Your task to perform on an android device: visit the assistant section in the google photos Image 0: 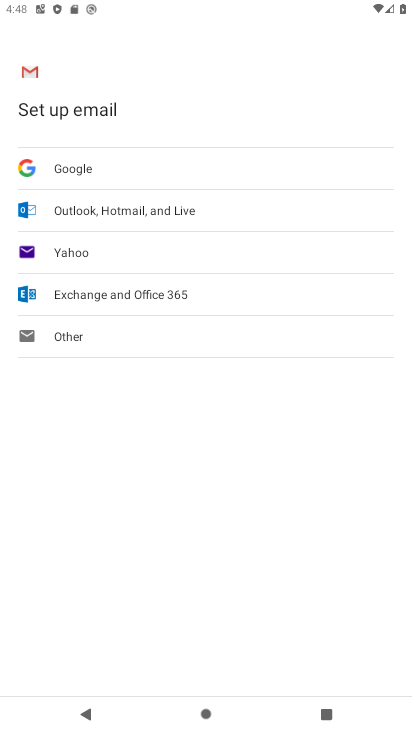
Step 0: press back button
Your task to perform on an android device: visit the assistant section in the google photos Image 1: 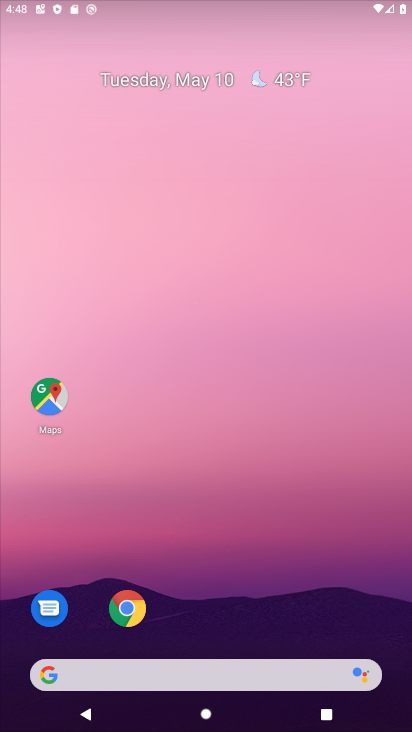
Step 1: drag from (131, 598) to (251, 70)
Your task to perform on an android device: visit the assistant section in the google photos Image 2: 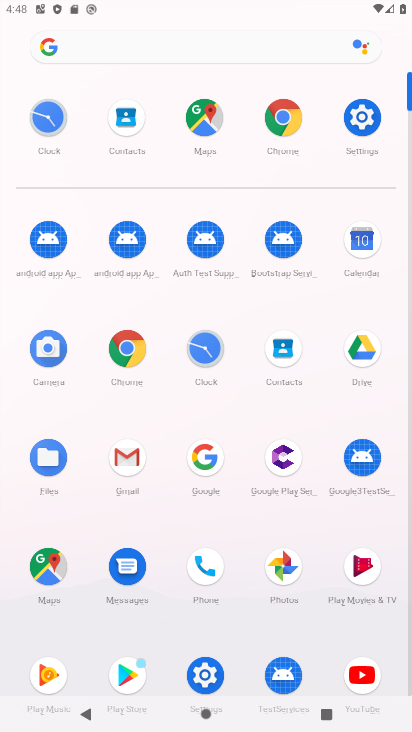
Step 2: click (277, 568)
Your task to perform on an android device: visit the assistant section in the google photos Image 3: 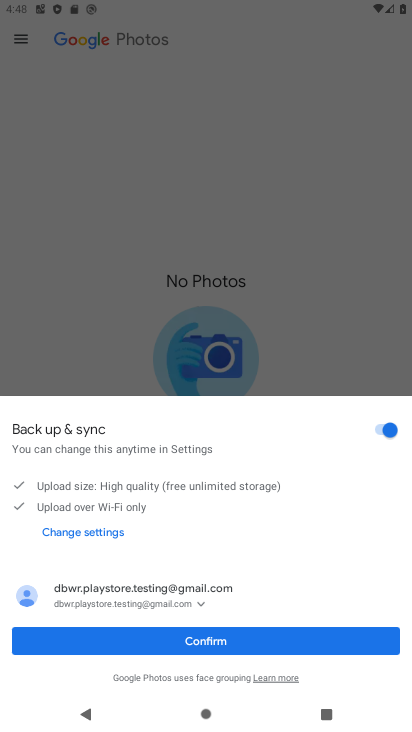
Step 3: click (192, 639)
Your task to perform on an android device: visit the assistant section in the google photos Image 4: 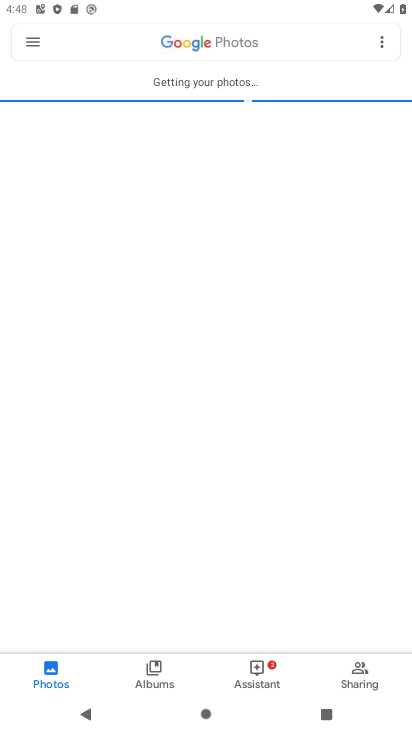
Step 4: click (251, 671)
Your task to perform on an android device: visit the assistant section in the google photos Image 5: 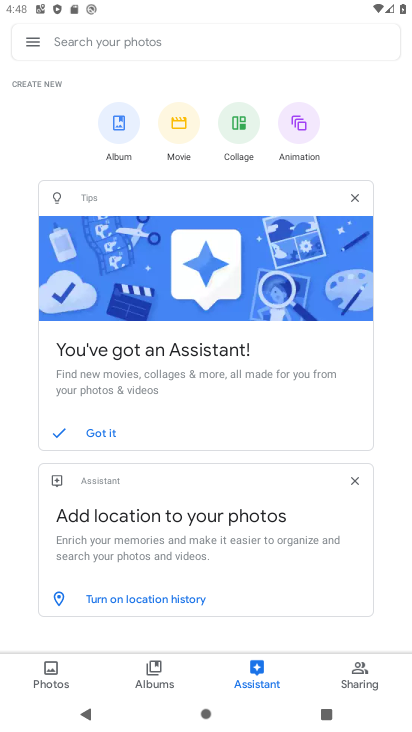
Step 5: task complete